Your task to perform on an android device: Open settings Image 0: 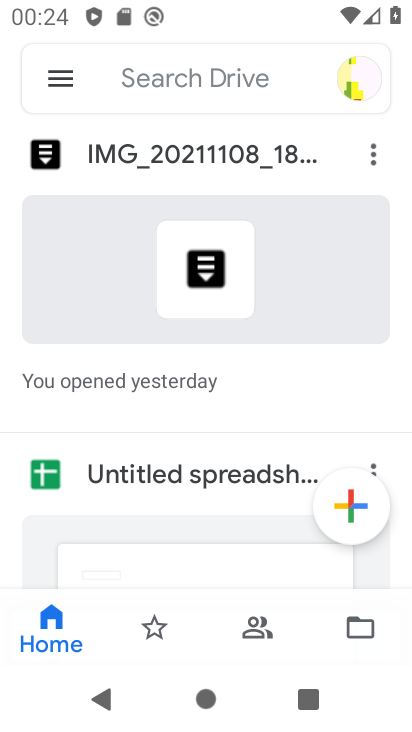
Step 0: drag from (191, 489) to (269, 147)
Your task to perform on an android device: Open settings Image 1: 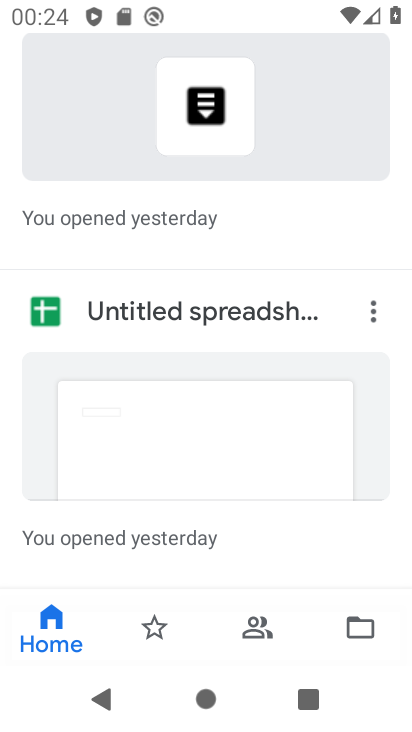
Step 1: drag from (191, 446) to (227, 260)
Your task to perform on an android device: Open settings Image 2: 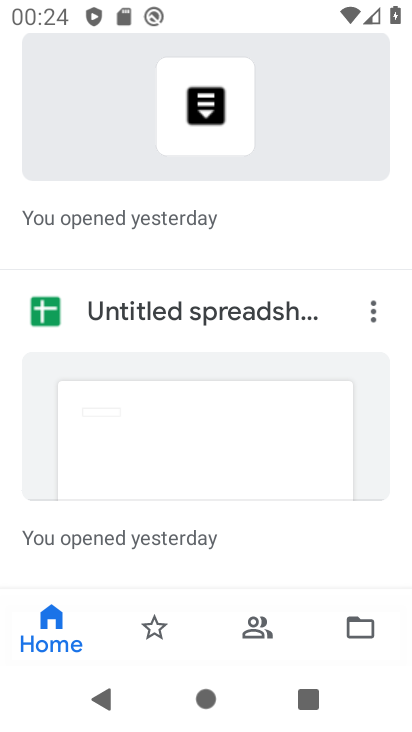
Step 2: press home button
Your task to perform on an android device: Open settings Image 3: 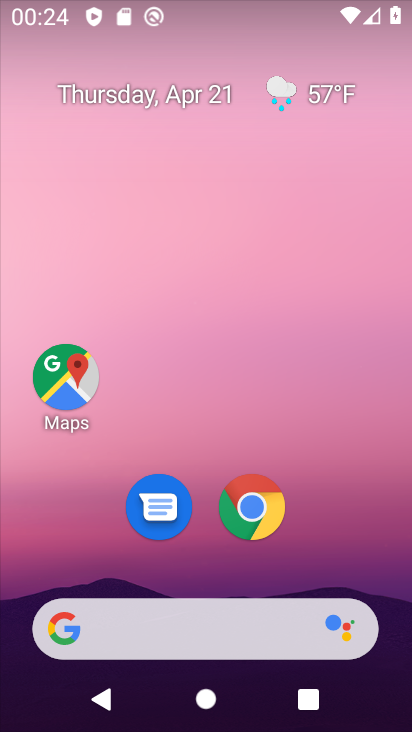
Step 3: drag from (201, 497) to (246, 153)
Your task to perform on an android device: Open settings Image 4: 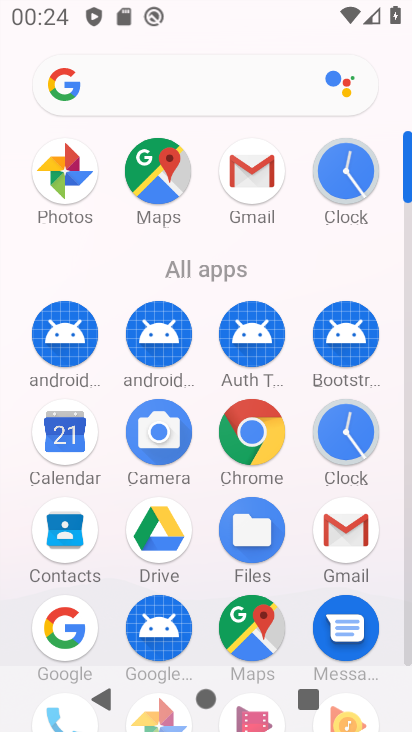
Step 4: drag from (216, 531) to (240, 236)
Your task to perform on an android device: Open settings Image 5: 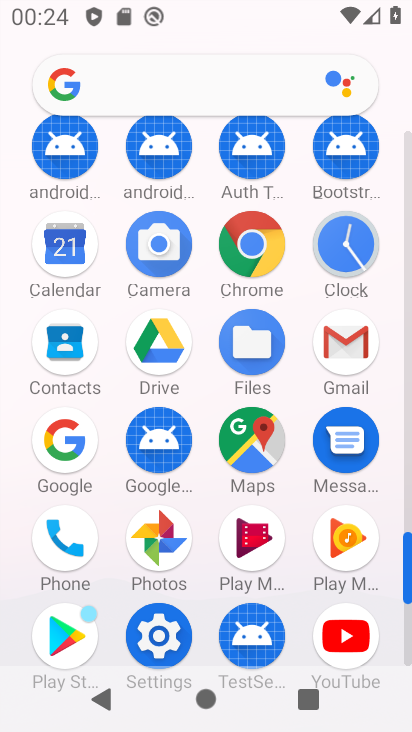
Step 5: click (157, 638)
Your task to perform on an android device: Open settings Image 6: 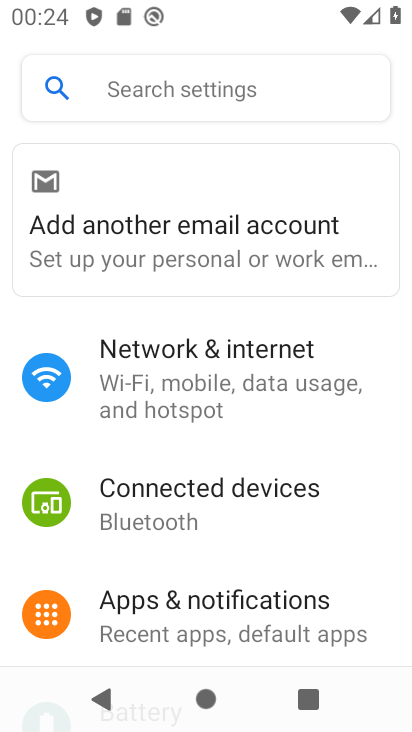
Step 6: task complete